Your task to perform on an android device: open app "TextNow: Call + Text Unlimited" (install if not already installed) Image 0: 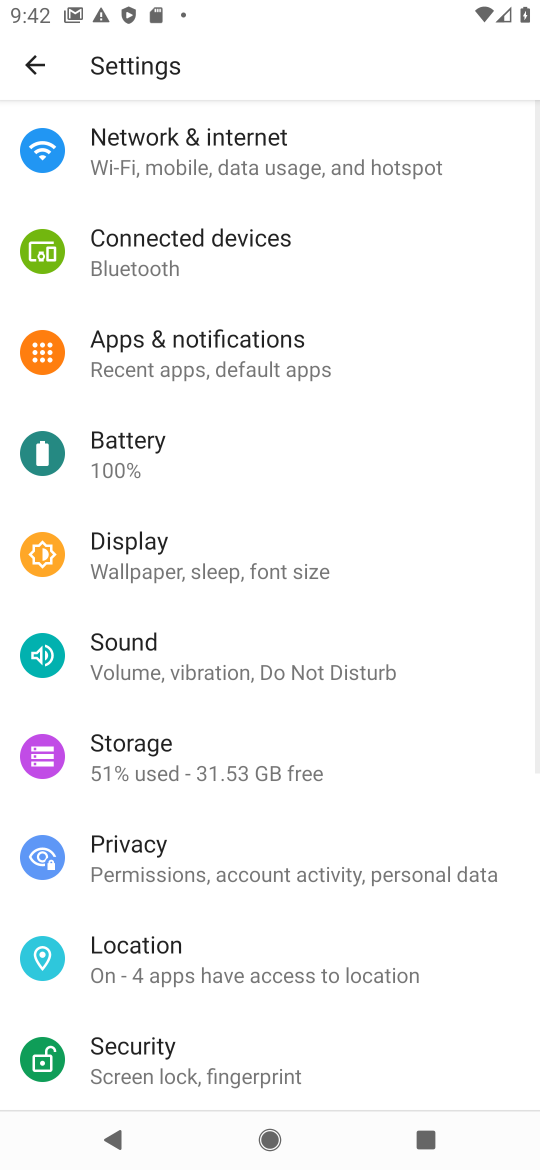
Step 0: press back button
Your task to perform on an android device: open app "TextNow: Call + Text Unlimited" (install if not already installed) Image 1: 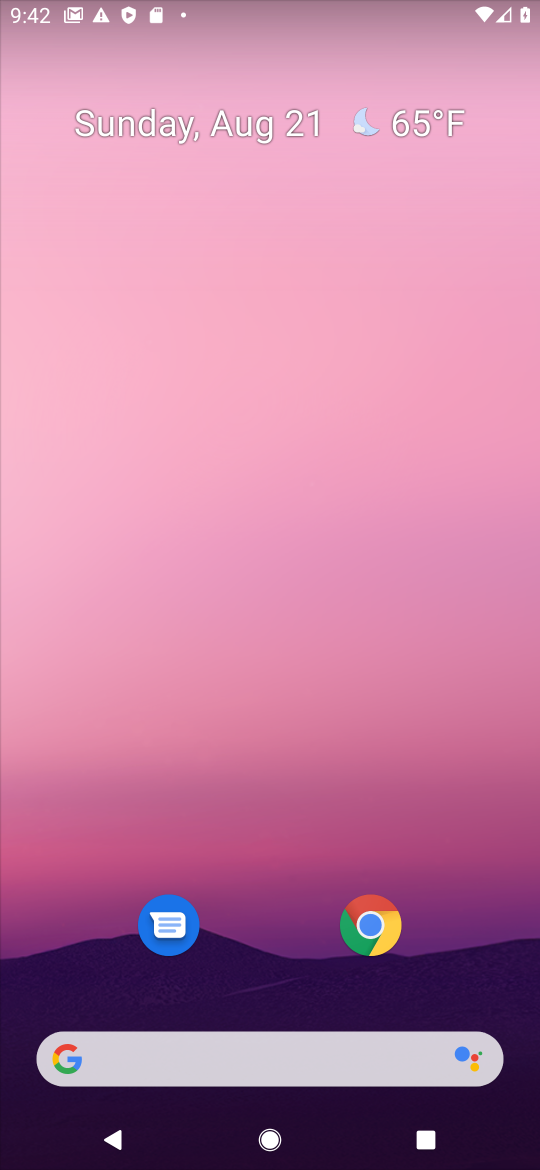
Step 1: drag from (348, 217) to (366, 97)
Your task to perform on an android device: open app "TextNow: Call + Text Unlimited" (install if not already installed) Image 2: 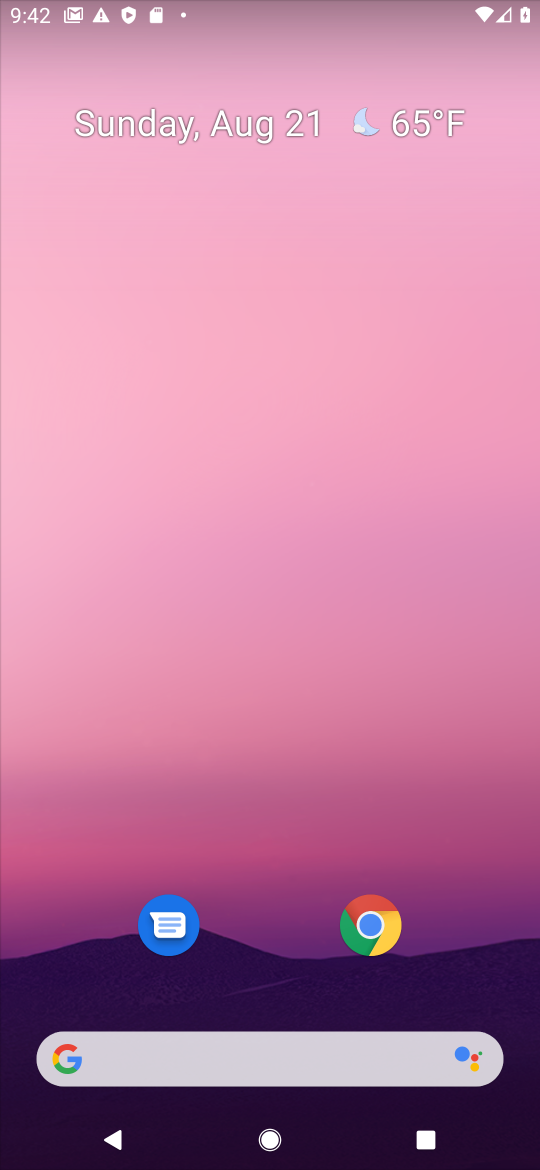
Step 2: drag from (237, 931) to (269, 131)
Your task to perform on an android device: open app "TextNow: Call + Text Unlimited" (install if not already installed) Image 3: 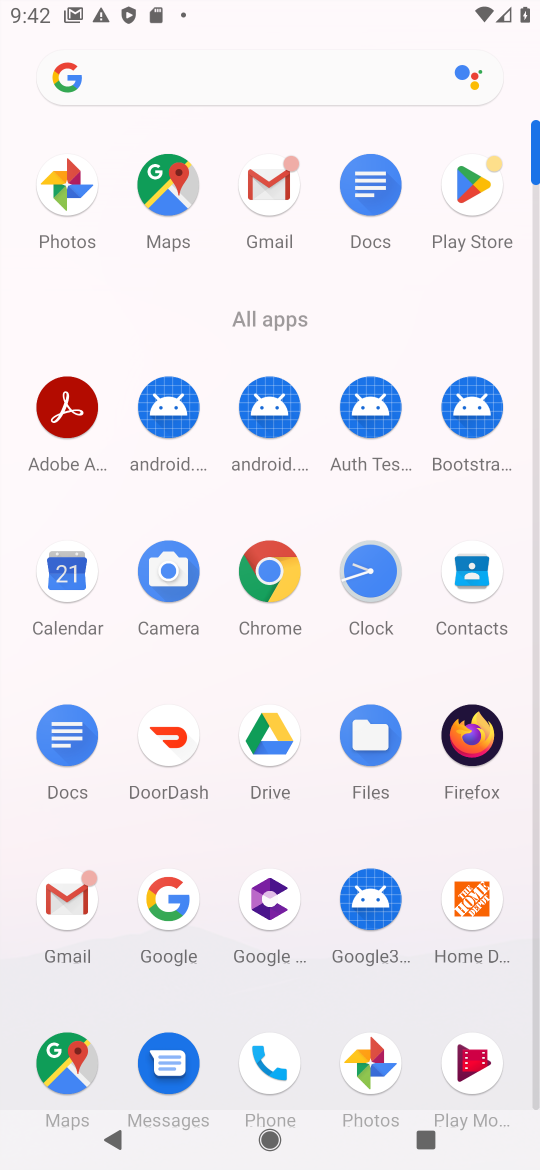
Step 3: click (474, 194)
Your task to perform on an android device: open app "TextNow: Call + Text Unlimited" (install if not already installed) Image 4: 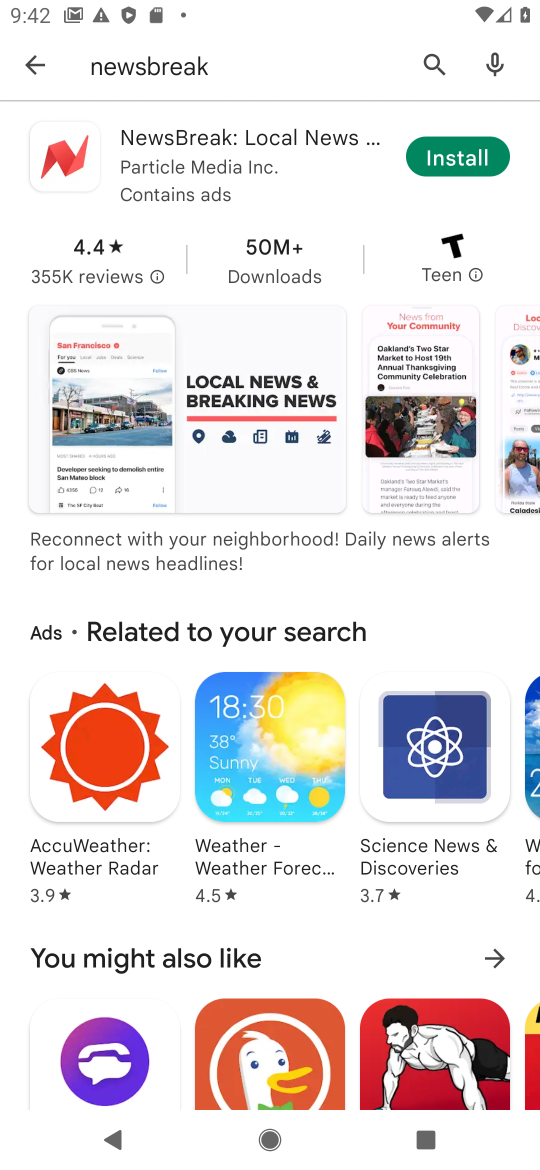
Step 4: click (423, 55)
Your task to perform on an android device: open app "TextNow: Call + Text Unlimited" (install if not already installed) Image 5: 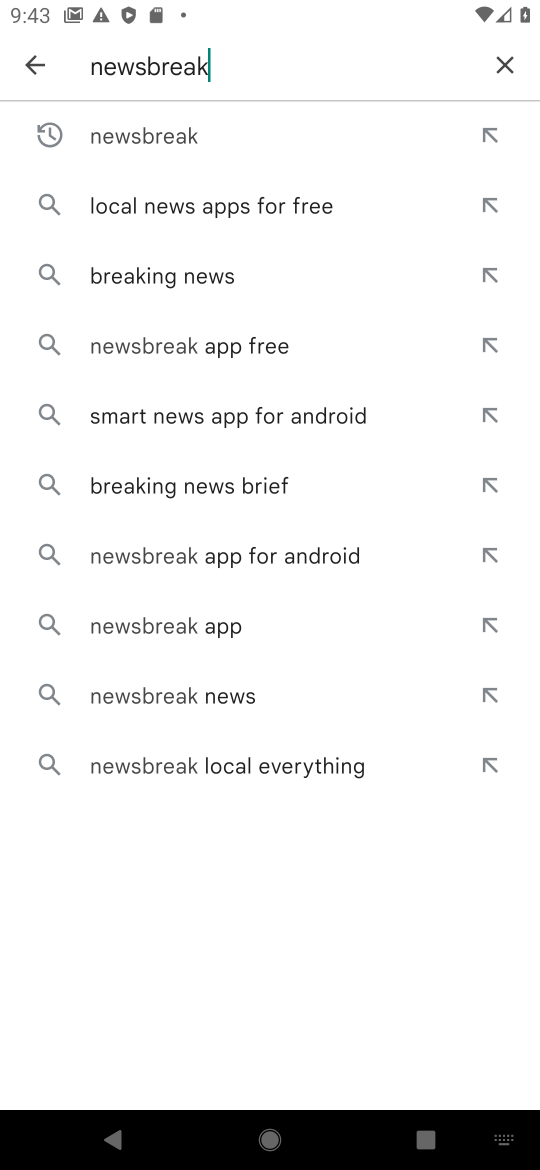
Step 5: click (490, 57)
Your task to perform on an android device: open app "TextNow: Call + Text Unlimited" (install if not already installed) Image 6: 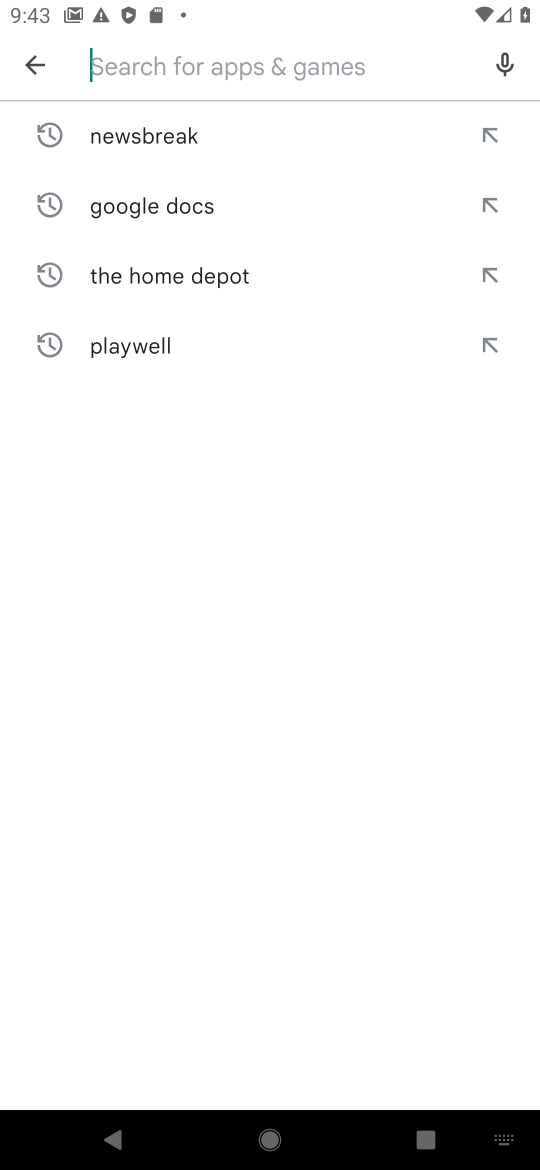
Step 6: click (116, 67)
Your task to perform on an android device: open app "TextNow: Call + Text Unlimited" (install if not already installed) Image 7: 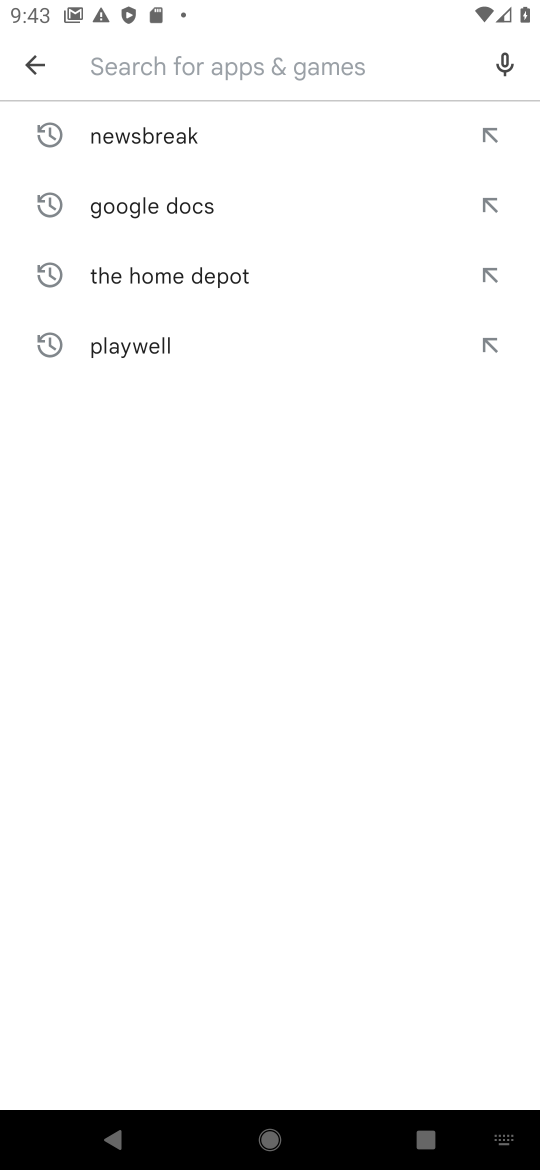
Step 7: type "TextNow"
Your task to perform on an android device: open app "TextNow: Call + Text Unlimited" (install if not already installed) Image 8: 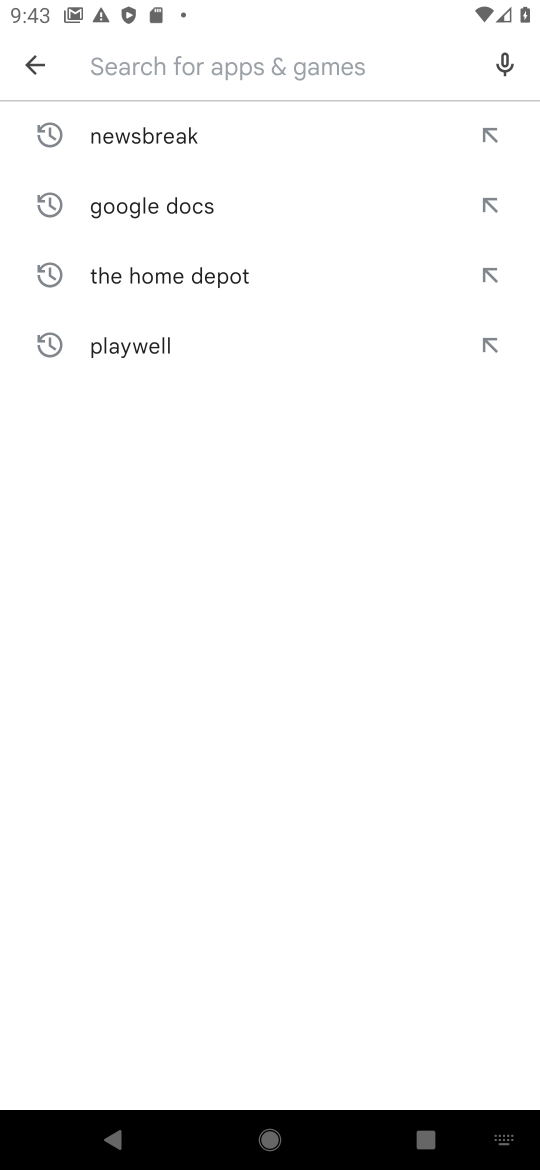
Step 8: click (269, 608)
Your task to perform on an android device: open app "TextNow: Call + Text Unlimited" (install if not already installed) Image 9: 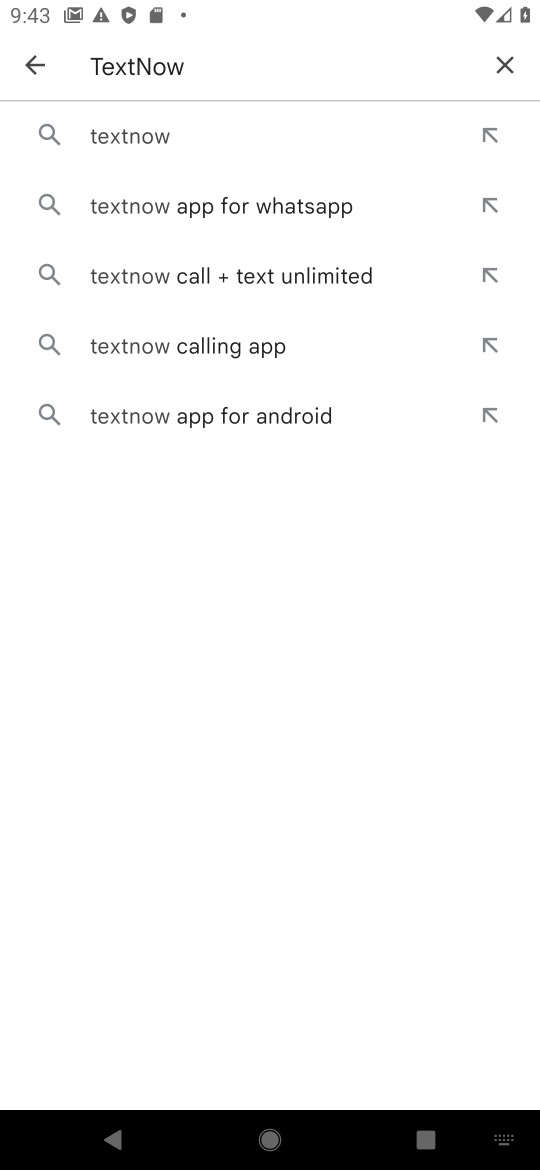
Step 9: click (125, 127)
Your task to perform on an android device: open app "TextNow: Call + Text Unlimited" (install if not already installed) Image 10: 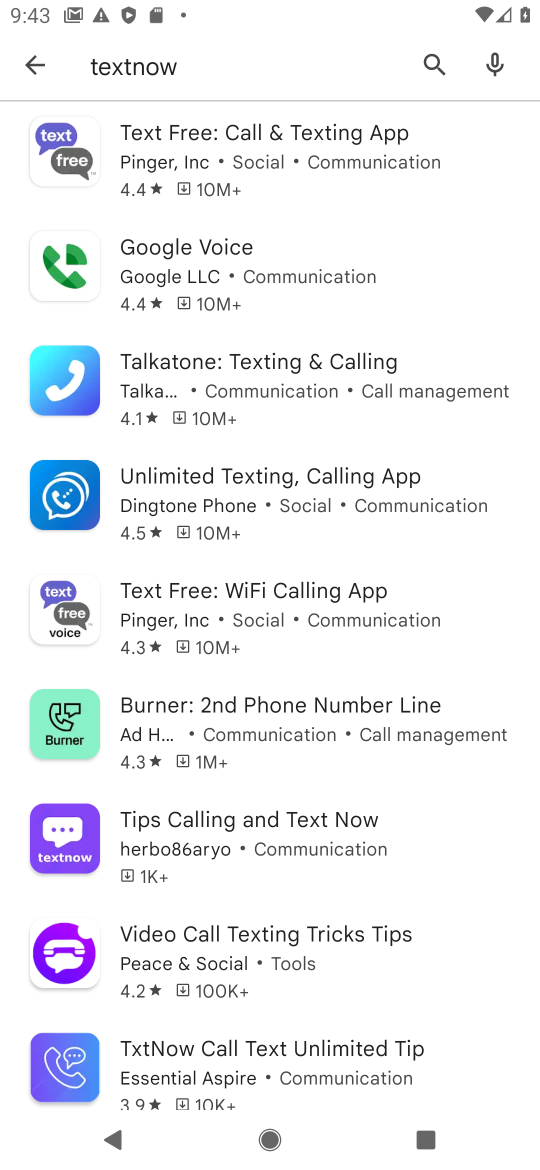
Step 10: click (344, 1075)
Your task to perform on an android device: open app "TextNow: Call + Text Unlimited" (install if not already installed) Image 11: 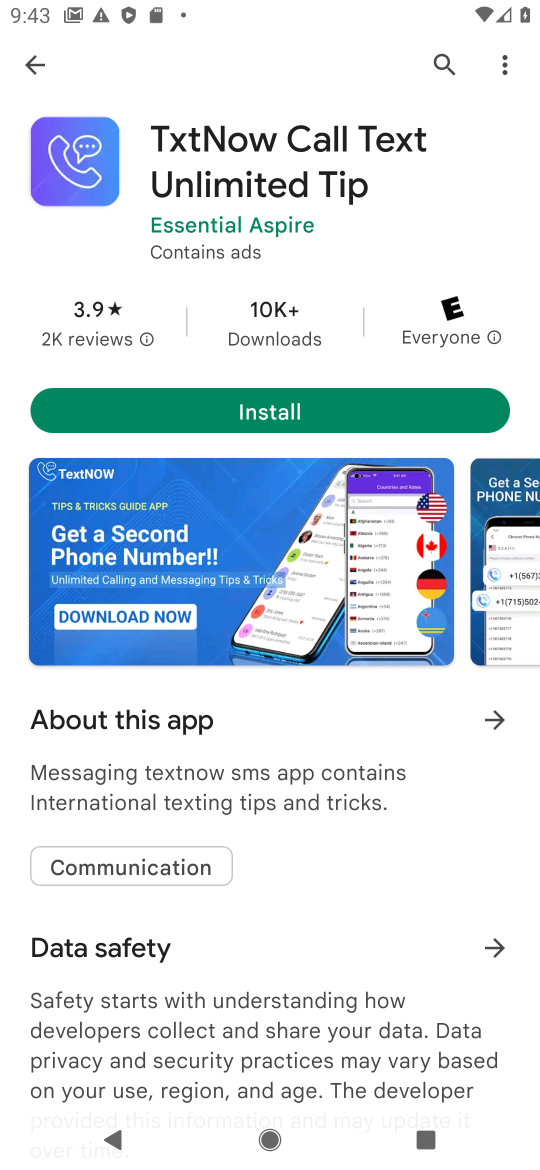
Step 11: click (342, 400)
Your task to perform on an android device: open app "TextNow: Call + Text Unlimited" (install if not already installed) Image 12: 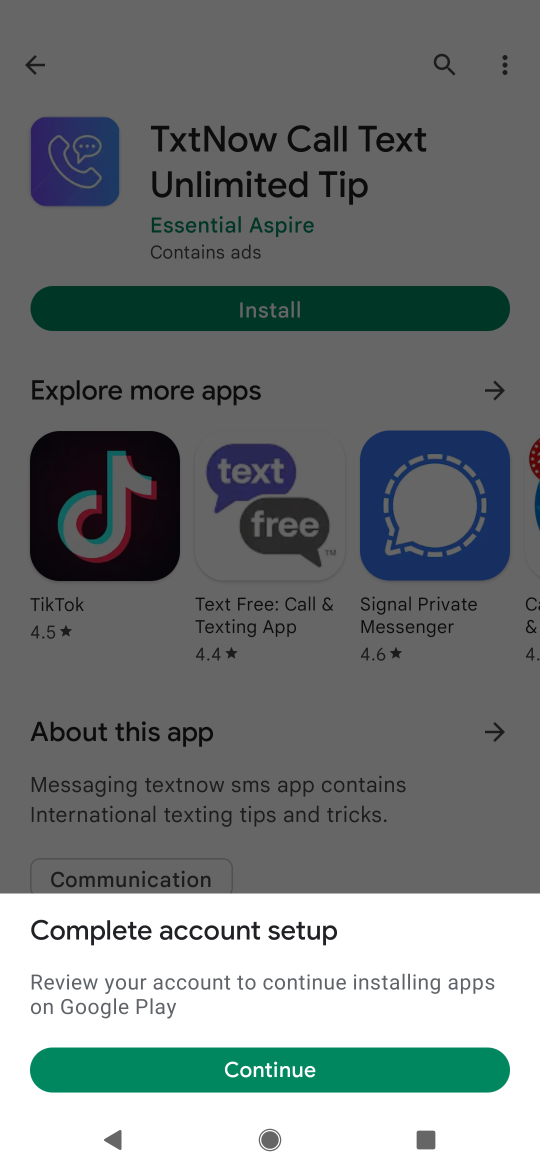
Step 12: click (229, 1086)
Your task to perform on an android device: open app "TextNow: Call + Text Unlimited" (install if not already installed) Image 13: 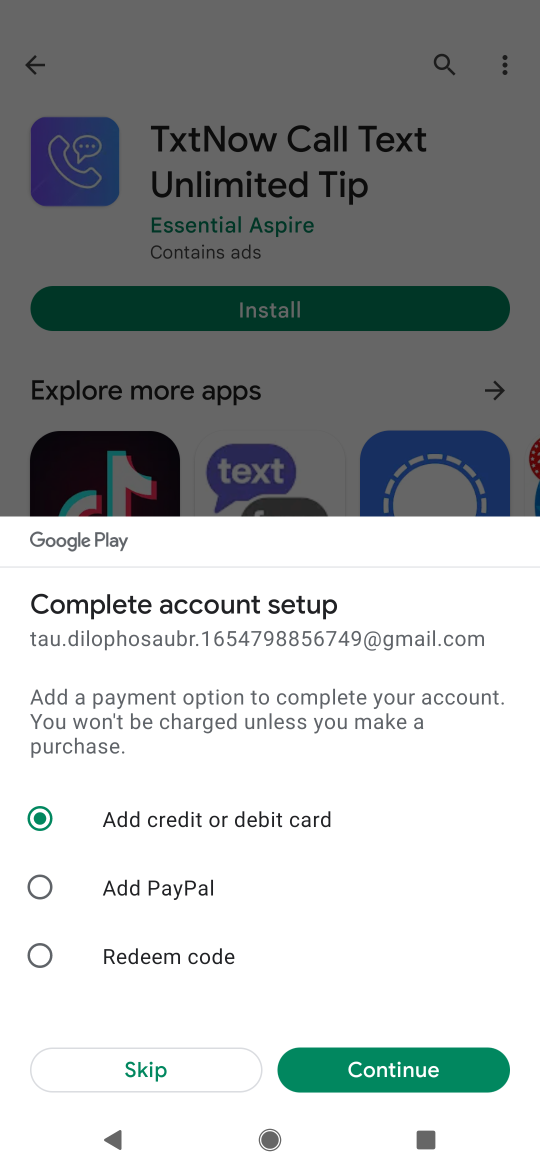
Step 13: click (123, 1076)
Your task to perform on an android device: open app "TextNow: Call + Text Unlimited" (install if not already installed) Image 14: 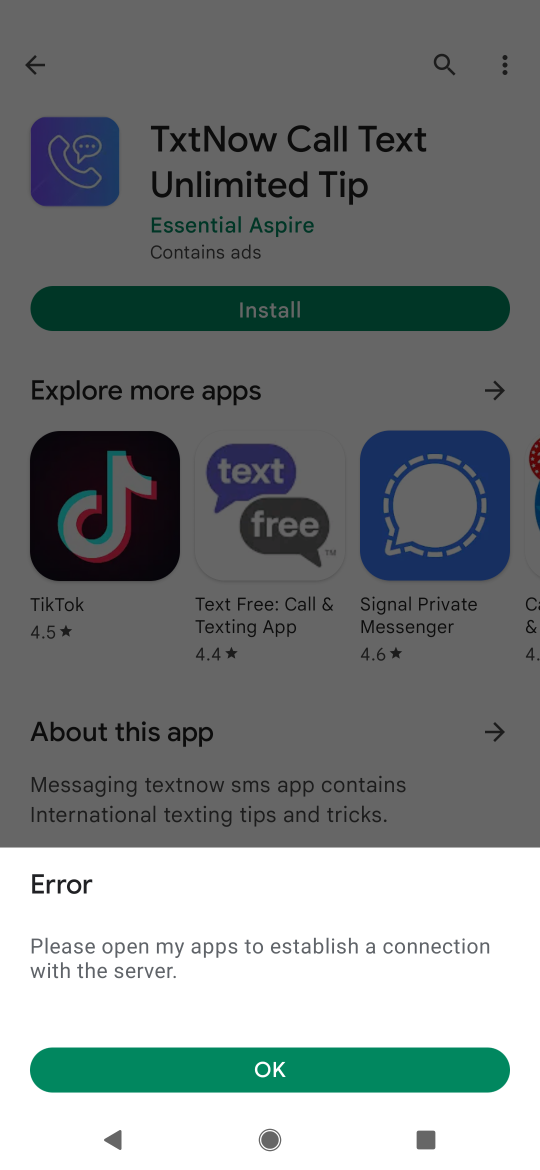
Step 14: task complete